Your task to perform on an android device: see creations saved in the google photos Image 0: 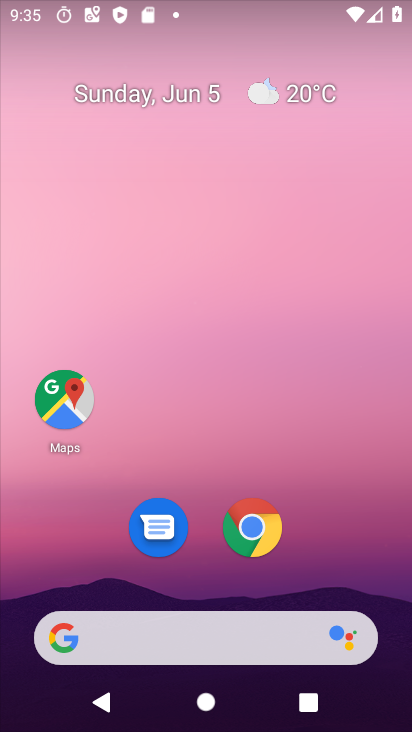
Step 0: drag from (336, 551) to (311, 11)
Your task to perform on an android device: see creations saved in the google photos Image 1: 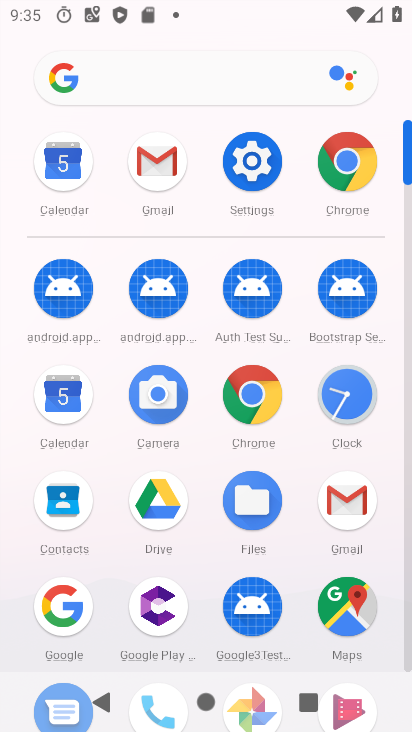
Step 1: drag from (389, 534) to (394, 248)
Your task to perform on an android device: see creations saved in the google photos Image 2: 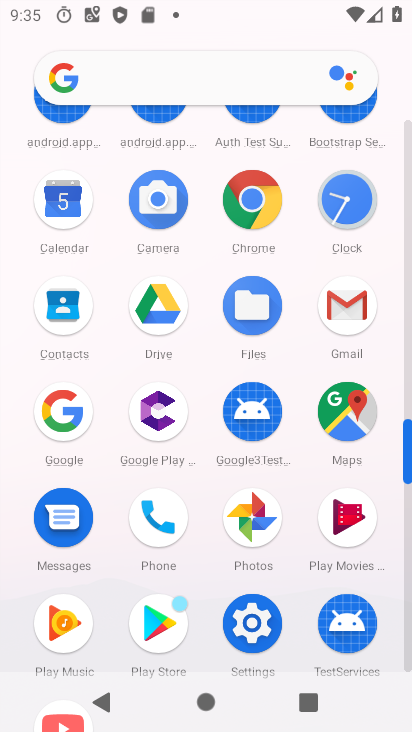
Step 2: click (266, 518)
Your task to perform on an android device: see creations saved in the google photos Image 3: 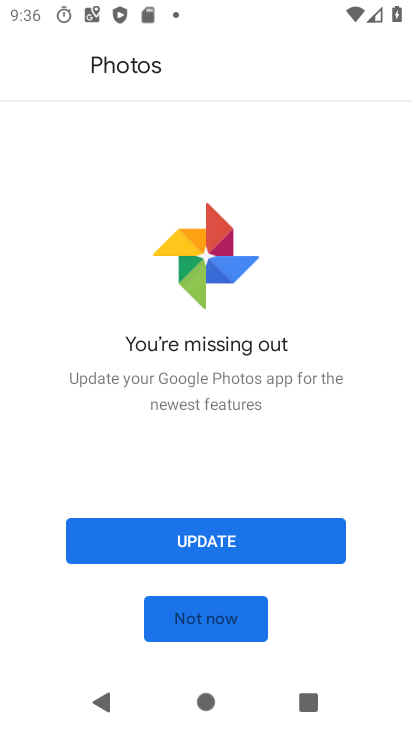
Step 3: click (200, 536)
Your task to perform on an android device: see creations saved in the google photos Image 4: 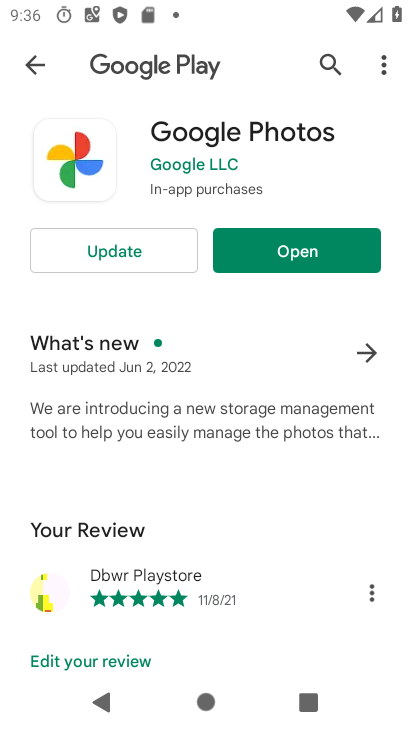
Step 4: click (150, 273)
Your task to perform on an android device: see creations saved in the google photos Image 5: 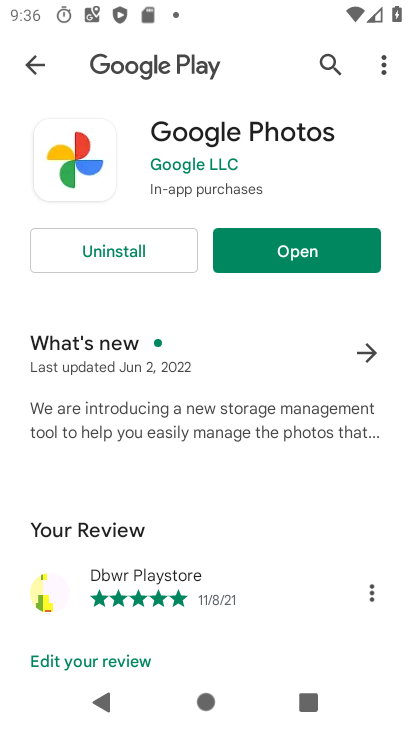
Step 5: click (281, 234)
Your task to perform on an android device: see creations saved in the google photos Image 6: 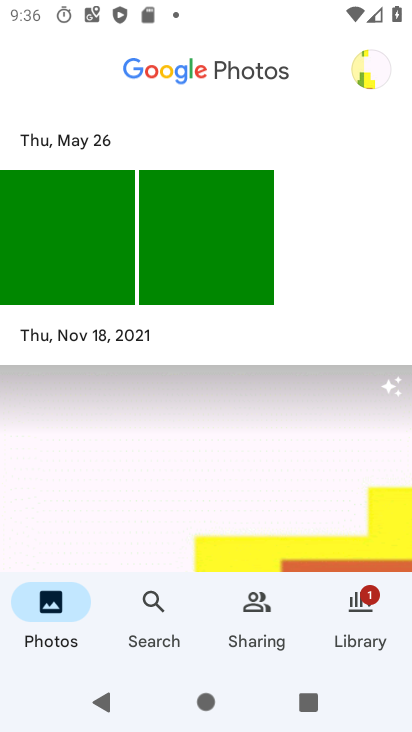
Step 6: task complete